Your task to perform on an android device: toggle sleep mode Image 0: 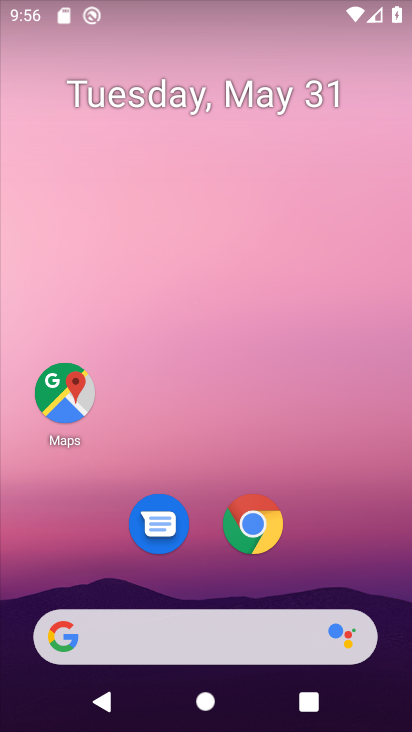
Step 0: drag from (339, 530) to (295, 40)
Your task to perform on an android device: toggle sleep mode Image 1: 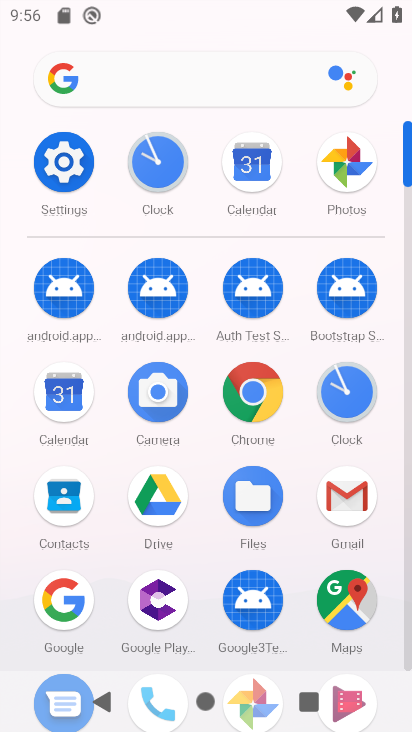
Step 1: click (72, 160)
Your task to perform on an android device: toggle sleep mode Image 2: 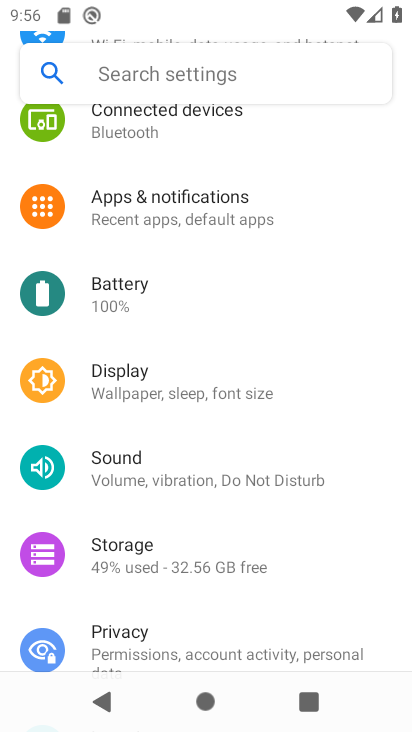
Step 2: click (176, 382)
Your task to perform on an android device: toggle sleep mode Image 3: 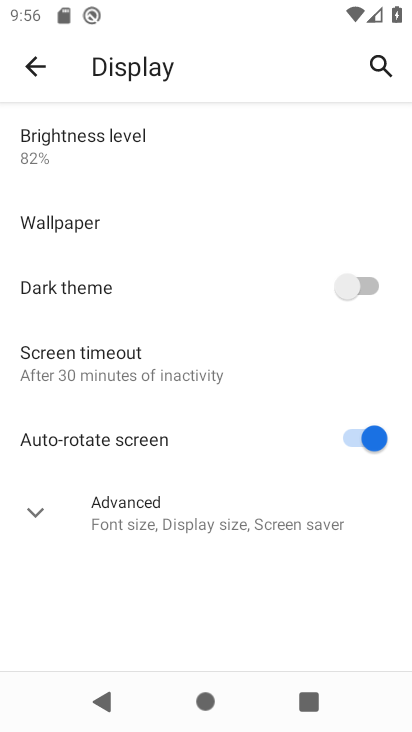
Step 3: click (34, 502)
Your task to perform on an android device: toggle sleep mode Image 4: 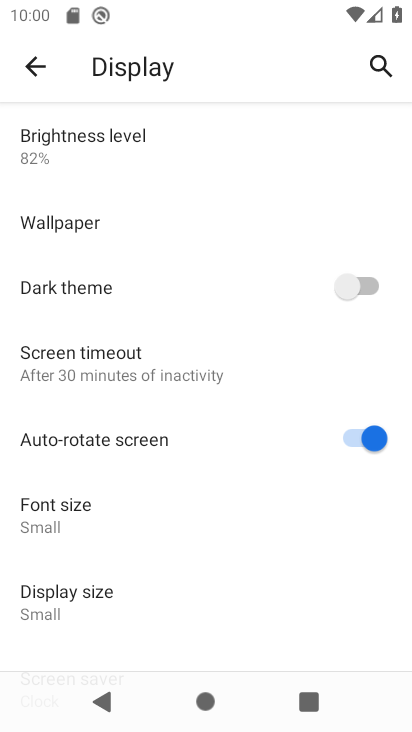
Step 4: task complete